Your task to perform on an android device: Open Chrome and go to the settings page Image 0: 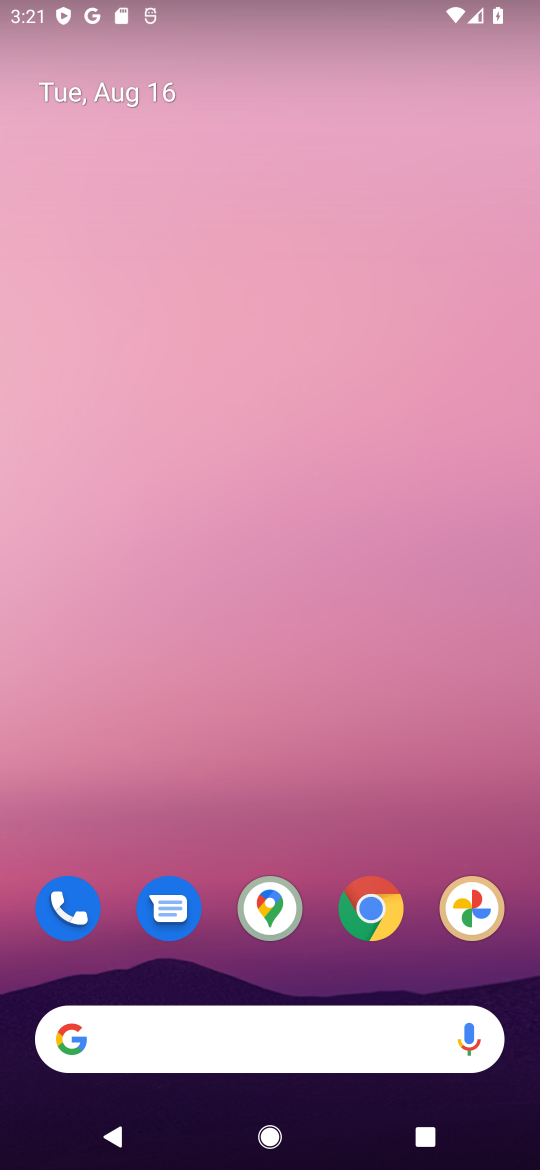
Step 0: click (359, 909)
Your task to perform on an android device: Open Chrome and go to the settings page Image 1: 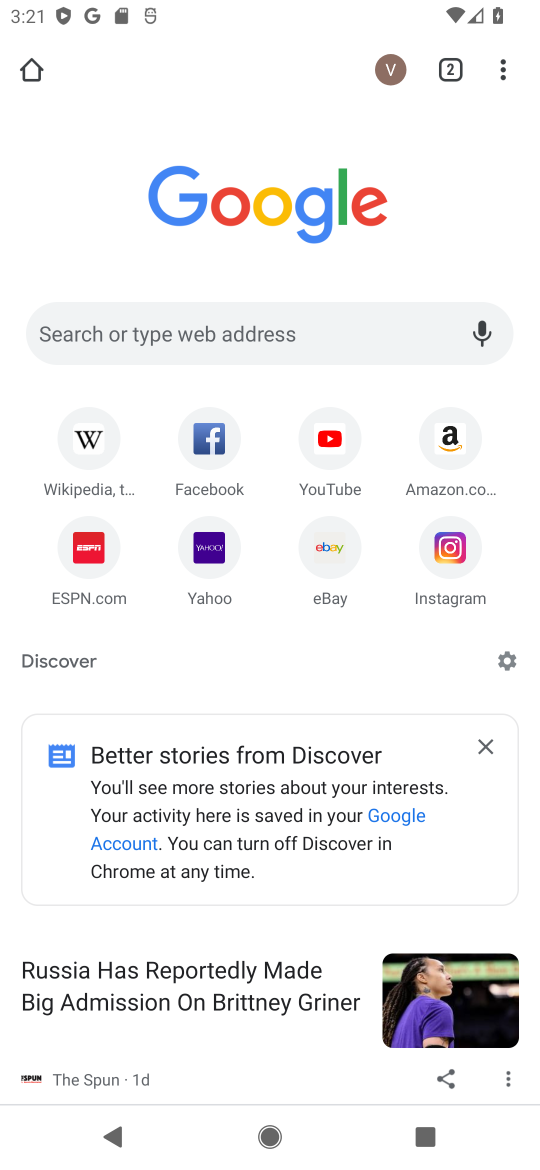
Step 1: task complete